Your task to perform on an android device: turn notification dots on Image 0: 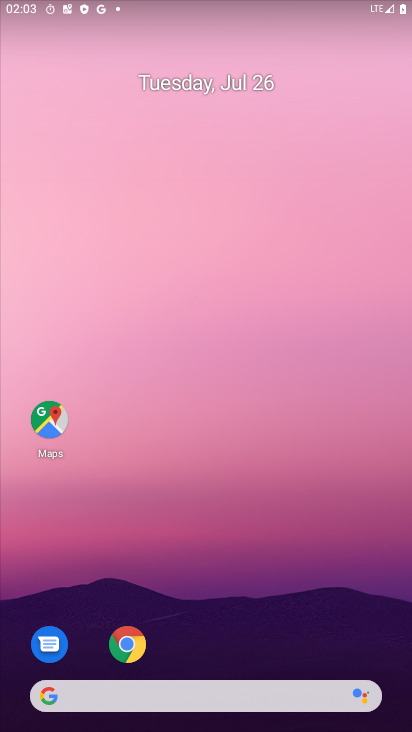
Step 0: drag from (259, 660) to (269, 61)
Your task to perform on an android device: turn notification dots on Image 1: 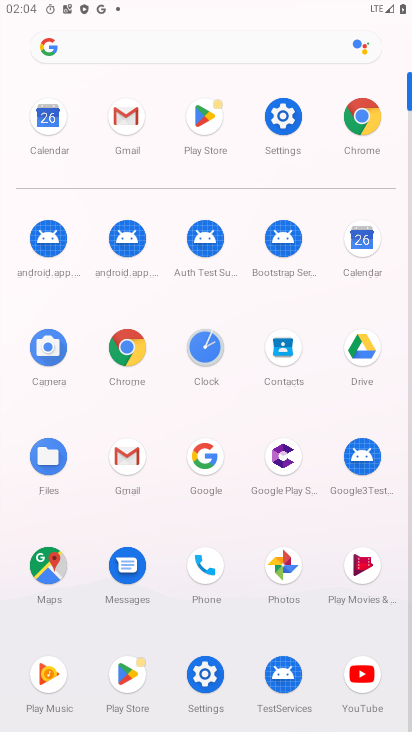
Step 1: click (278, 122)
Your task to perform on an android device: turn notification dots on Image 2: 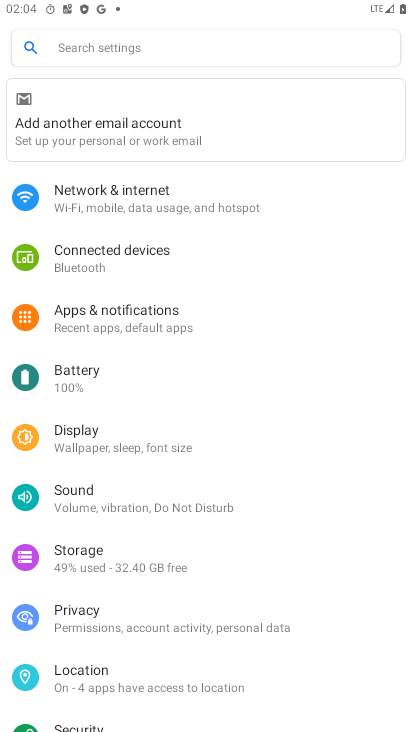
Step 2: click (132, 326)
Your task to perform on an android device: turn notification dots on Image 3: 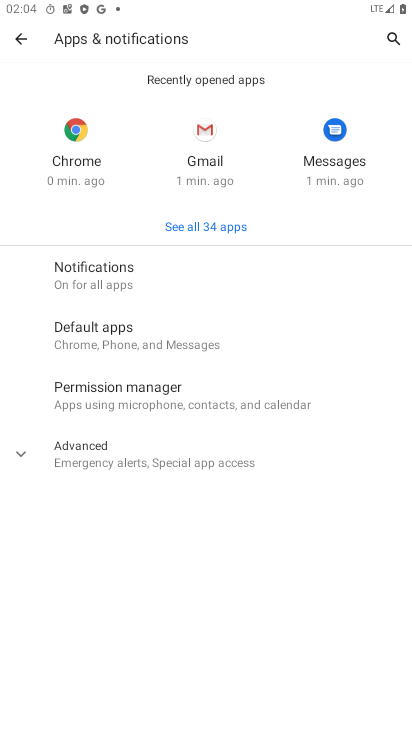
Step 3: click (100, 282)
Your task to perform on an android device: turn notification dots on Image 4: 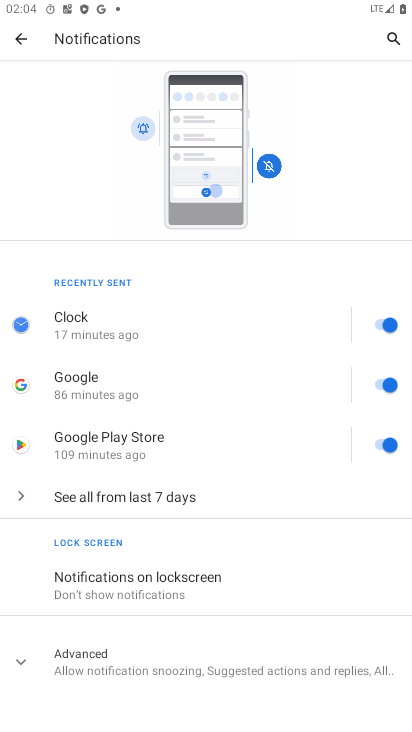
Step 4: click (18, 663)
Your task to perform on an android device: turn notification dots on Image 5: 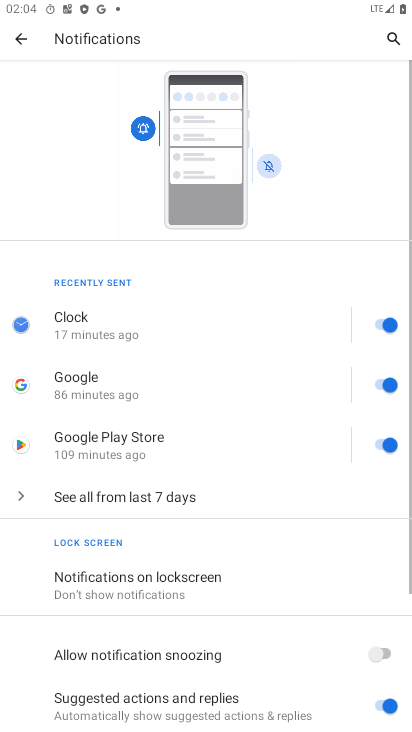
Step 5: task complete